Your task to perform on an android device: Open settings on Google Maps Image 0: 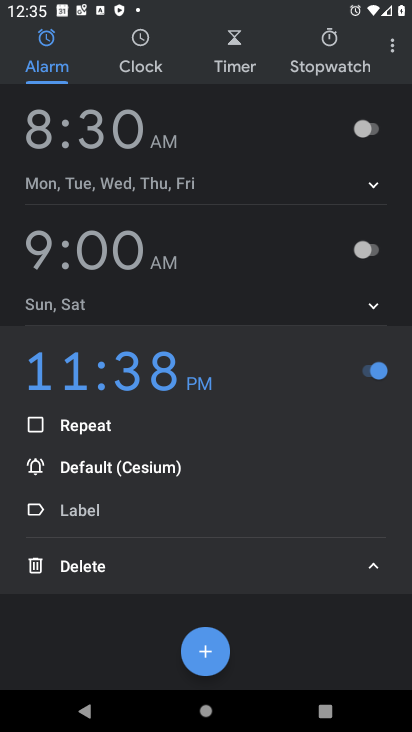
Step 0: press home button
Your task to perform on an android device: Open settings on Google Maps Image 1: 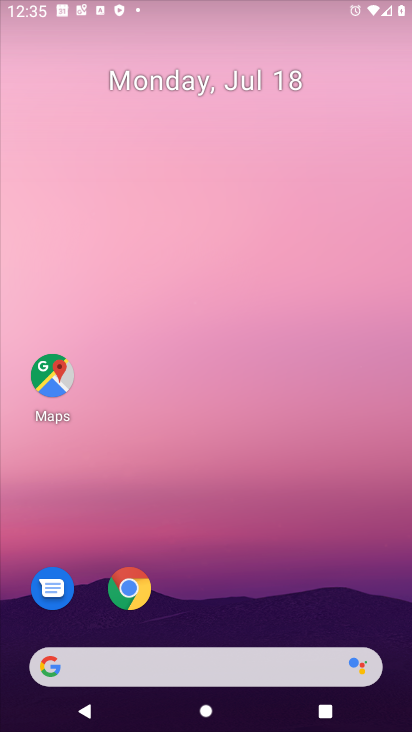
Step 1: drag from (279, 526) to (323, 65)
Your task to perform on an android device: Open settings on Google Maps Image 2: 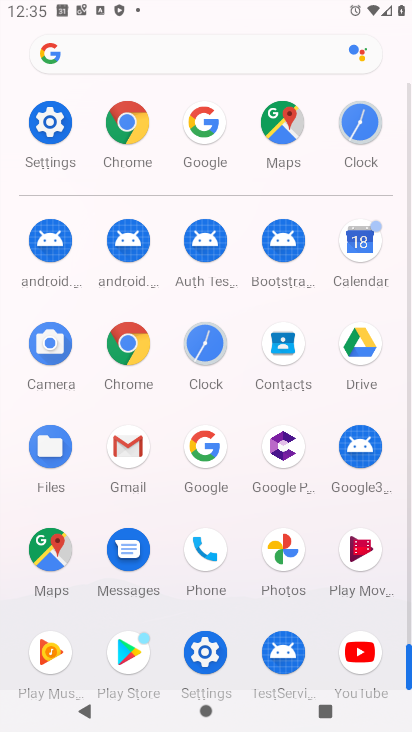
Step 2: click (53, 557)
Your task to perform on an android device: Open settings on Google Maps Image 3: 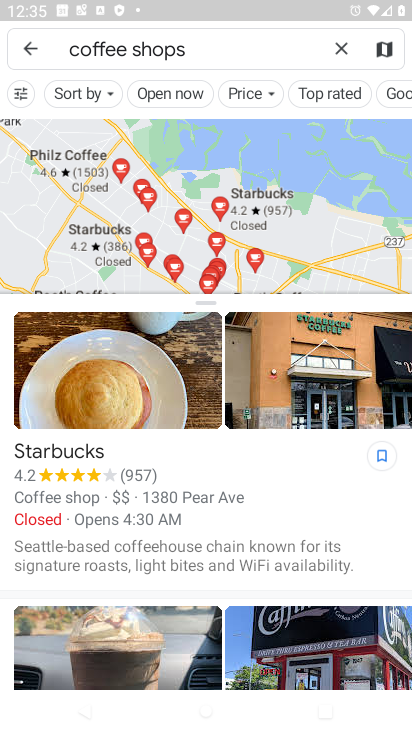
Step 3: click (37, 52)
Your task to perform on an android device: Open settings on Google Maps Image 4: 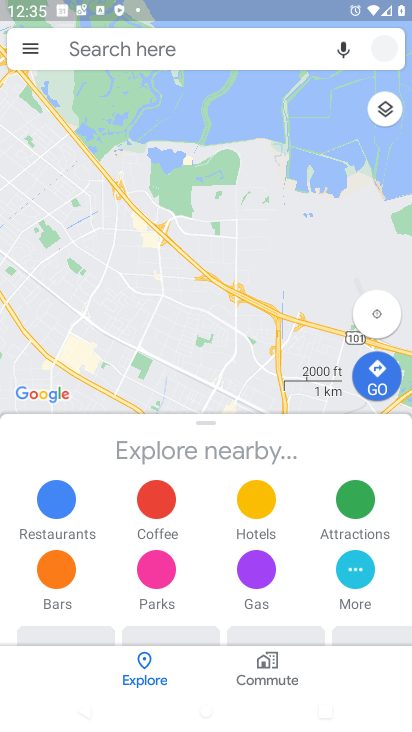
Step 4: click (32, 55)
Your task to perform on an android device: Open settings on Google Maps Image 5: 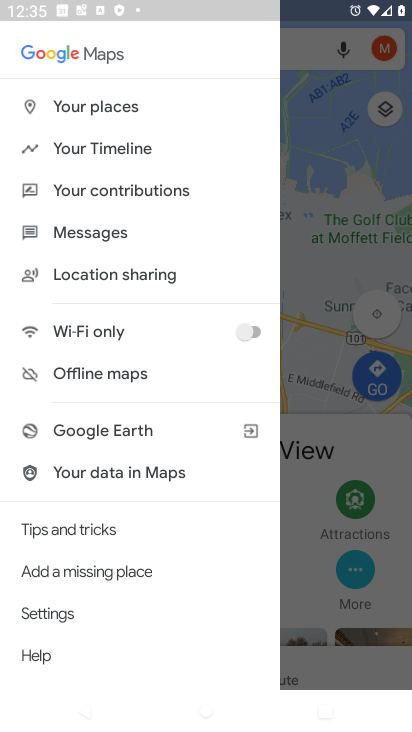
Step 5: click (40, 626)
Your task to perform on an android device: Open settings on Google Maps Image 6: 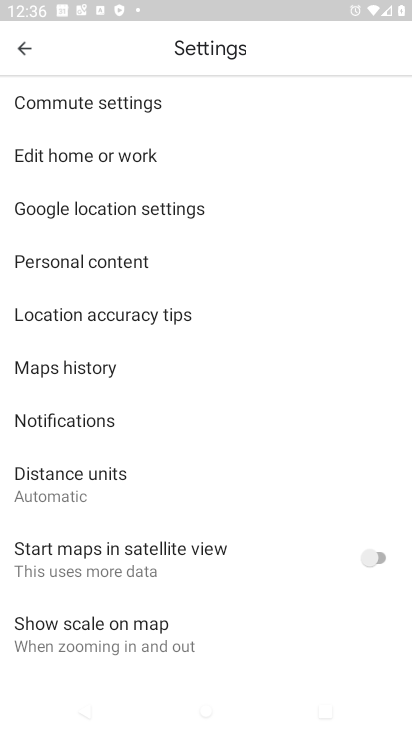
Step 6: task complete